Your task to perform on an android device: turn vacation reply on in the gmail app Image 0: 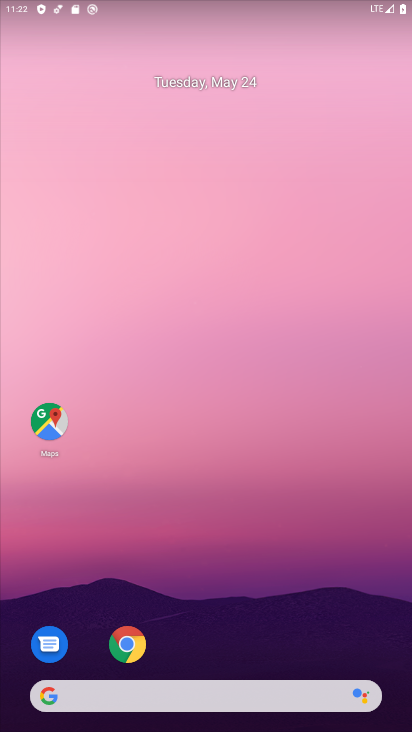
Step 0: drag from (166, 545) to (145, 90)
Your task to perform on an android device: turn vacation reply on in the gmail app Image 1: 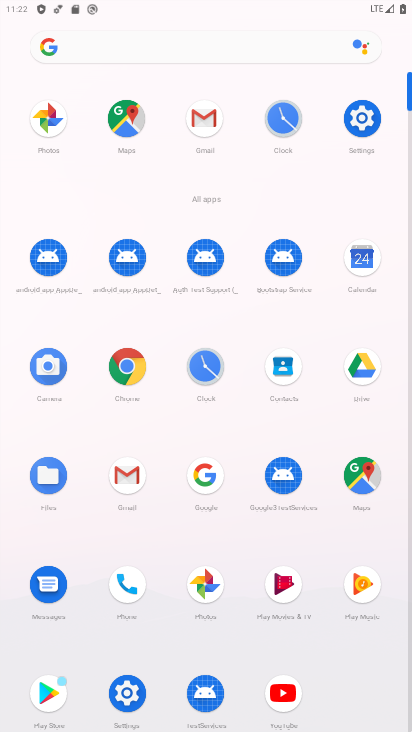
Step 1: click (202, 123)
Your task to perform on an android device: turn vacation reply on in the gmail app Image 2: 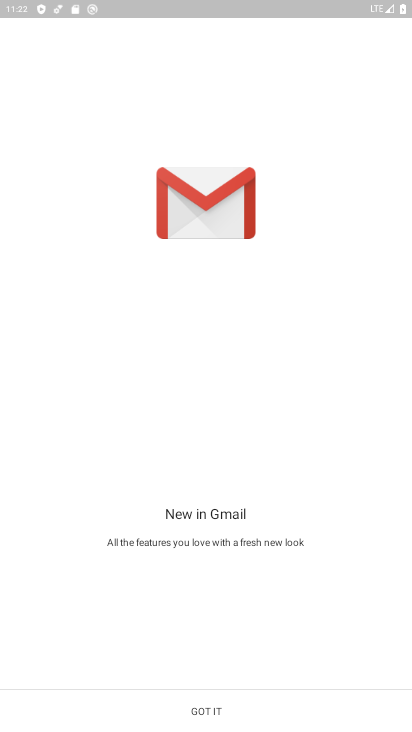
Step 2: click (202, 702)
Your task to perform on an android device: turn vacation reply on in the gmail app Image 3: 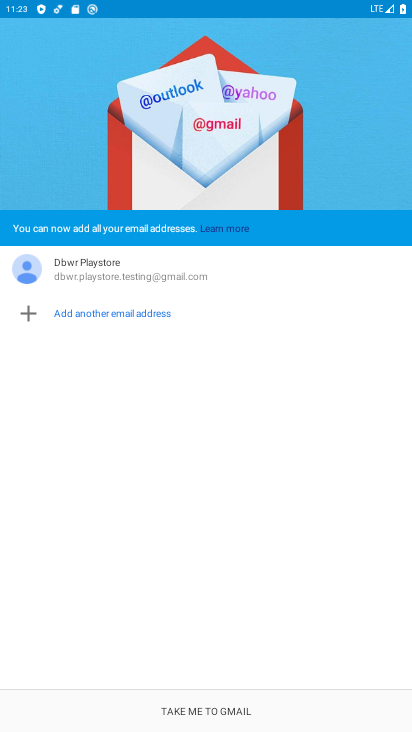
Step 3: click (182, 707)
Your task to perform on an android device: turn vacation reply on in the gmail app Image 4: 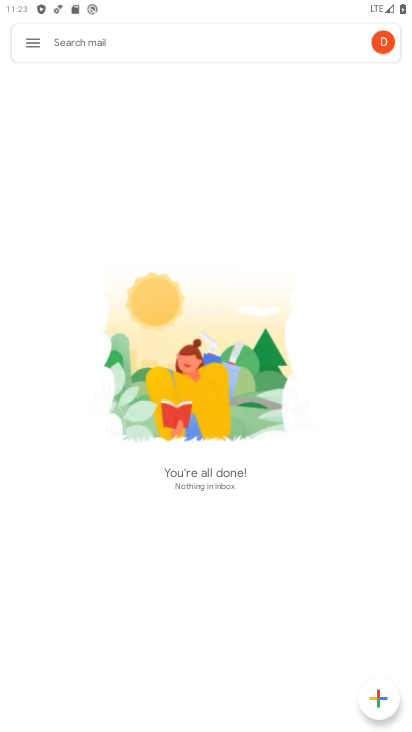
Step 4: click (26, 43)
Your task to perform on an android device: turn vacation reply on in the gmail app Image 5: 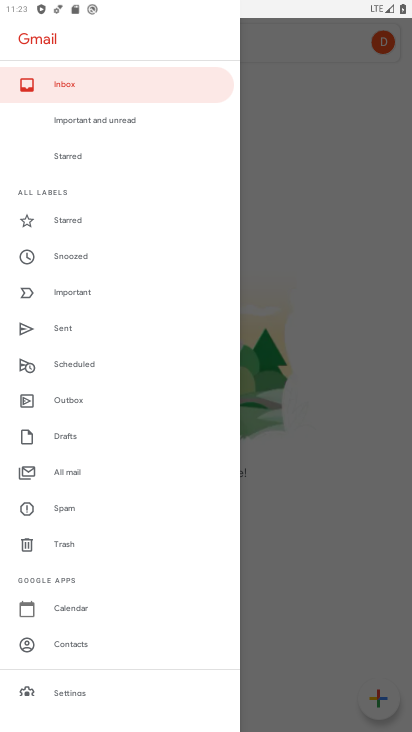
Step 5: drag from (93, 598) to (87, 684)
Your task to perform on an android device: turn vacation reply on in the gmail app Image 6: 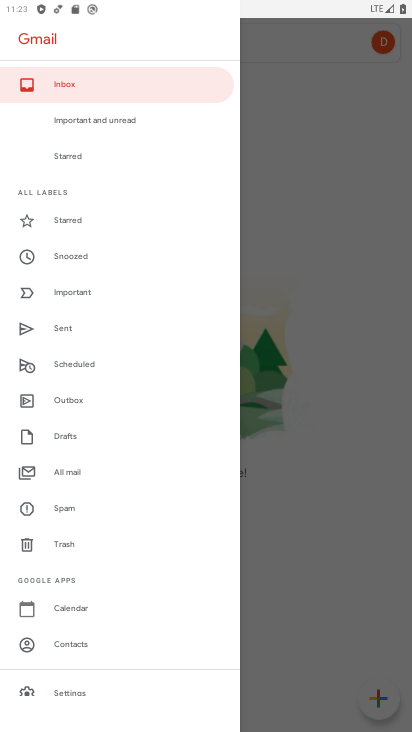
Step 6: click (44, 687)
Your task to perform on an android device: turn vacation reply on in the gmail app Image 7: 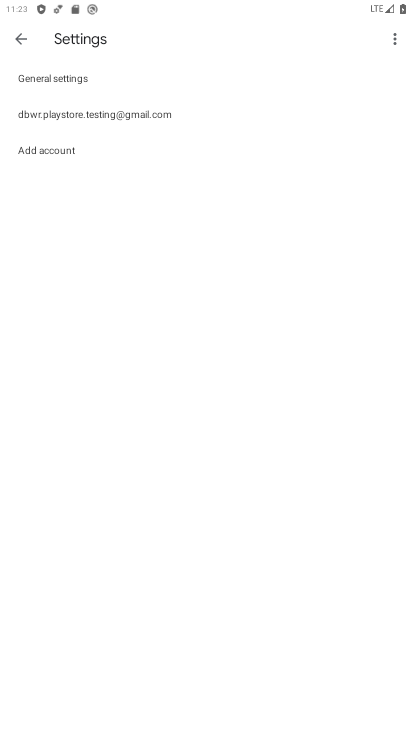
Step 7: click (56, 106)
Your task to perform on an android device: turn vacation reply on in the gmail app Image 8: 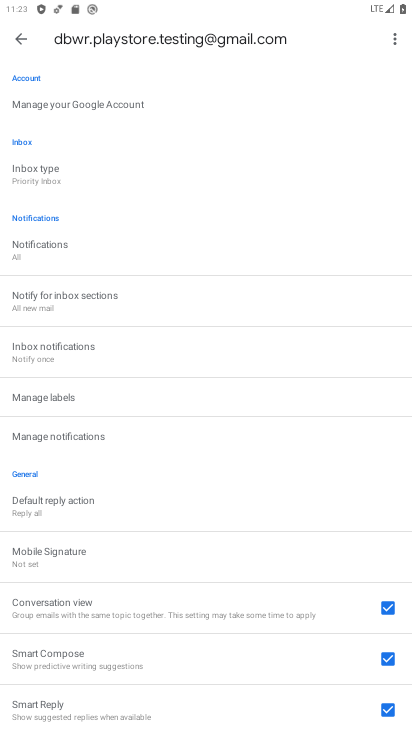
Step 8: drag from (186, 497) to (193, 47)
Your task to perform on an android device: turn vacation reply on in the gmail app Image 9: 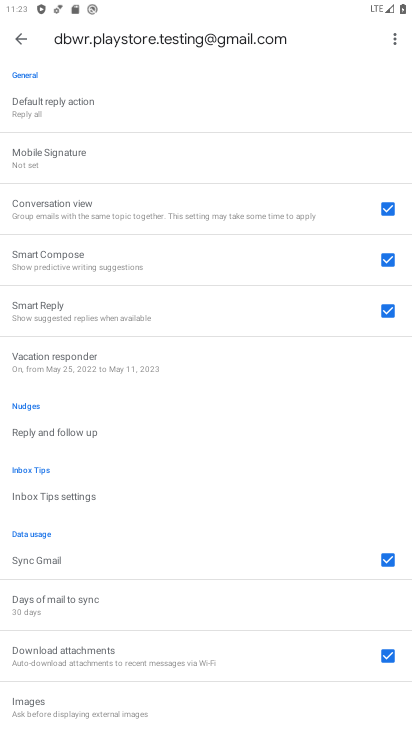
Step 9: click (72, 497)
Your task to perform on an android device: turn vacation reply on in the gmail app Image 10: 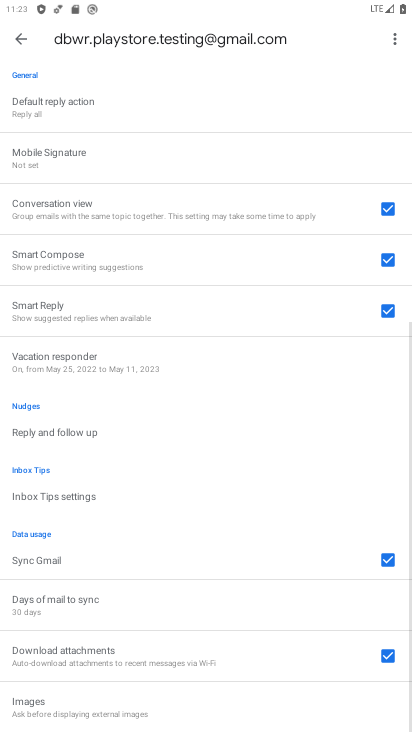
Step 10: drag from (292, 610) to (2, 511)
Your task to perform on an android device: turn vacation reply on in the gmail app Image 11: 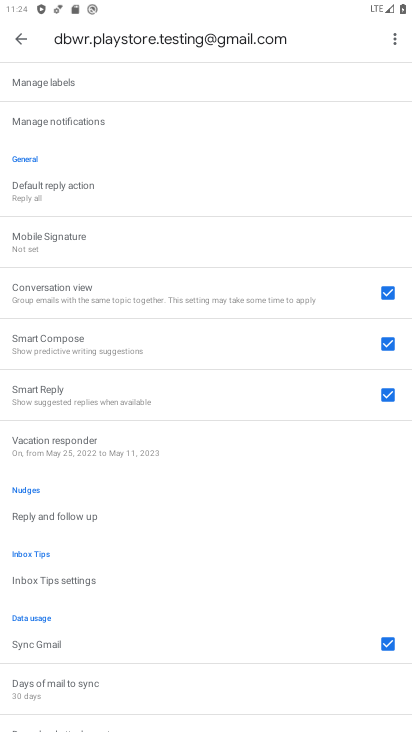
Step 11: drag from (319, 335) to (293, 616)
Your task to perform on an android device: turn vacation reply on in the gmail app Image 12: 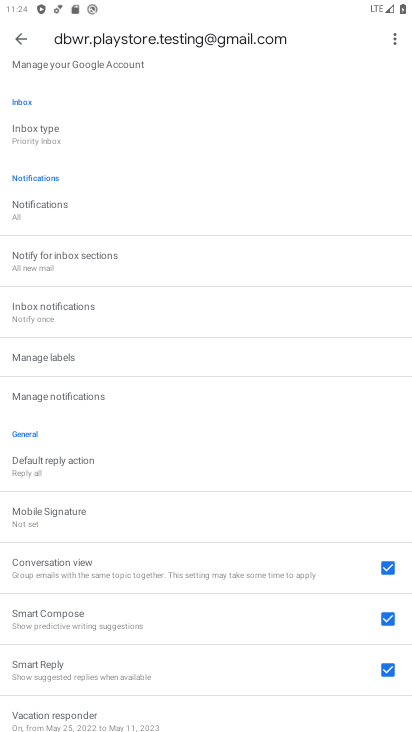
Step 12: click (36, 713)
Your task to perform on an android device: turn vacation reply on in the gmail app Image 13: 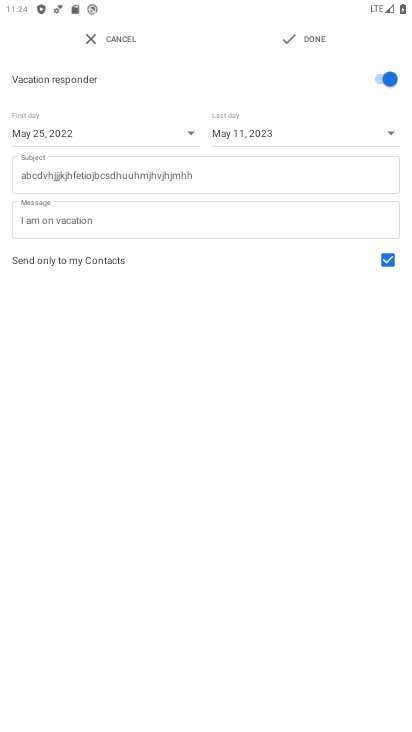
Step 13: task complete